Your task to perform on an android device: refresh tabs in the chrome app Image 0: 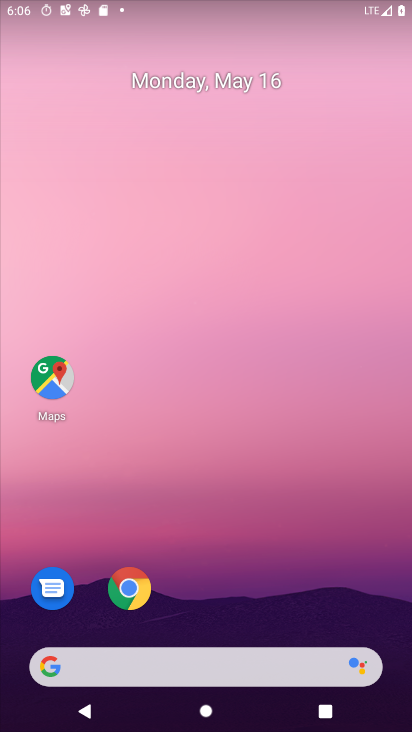
Step 0: click (137, 585)
Your task to perform on an android device: refresh tabs in the chrome app Image 1: 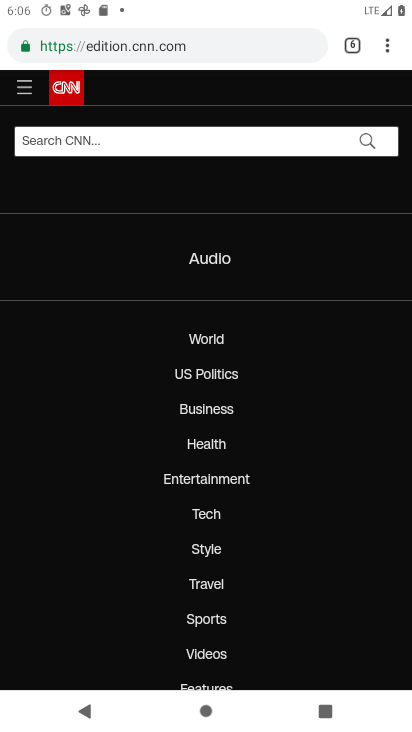
Step 1: click (383, 38)
Your task to perform on an android device: refresh tabs in the chrome app Image 2: 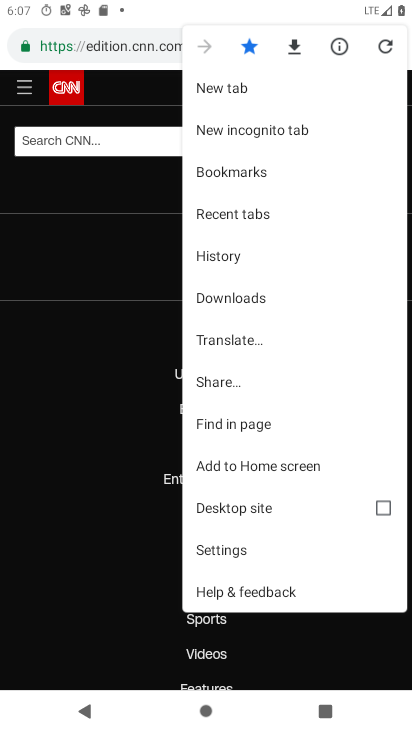
Step 2: click (383, 43)
Your task to perform on an android device: refresh tabs in the chrome app Image 3: 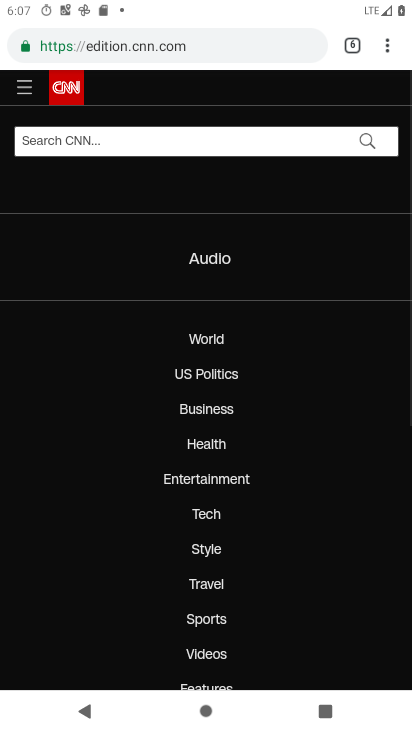
Step 3: task complete